Your task to perform on an android device: toggle data saver in the chrome app Image 0: 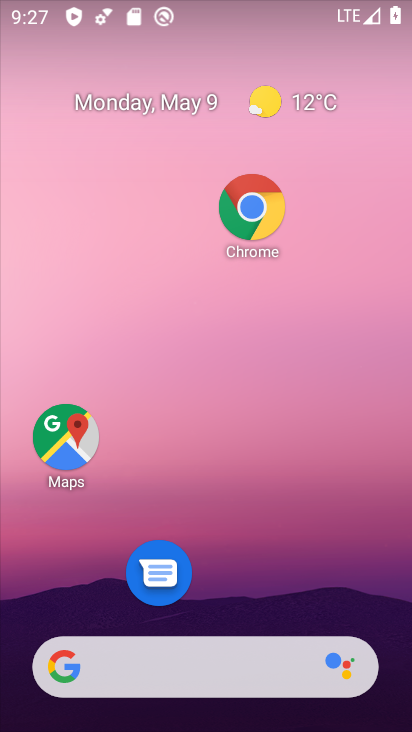
Step 0: drag from (293, 649) to (291, 158)
Your task to perform on an android device: toggle data saver in the chrome app Image 1: 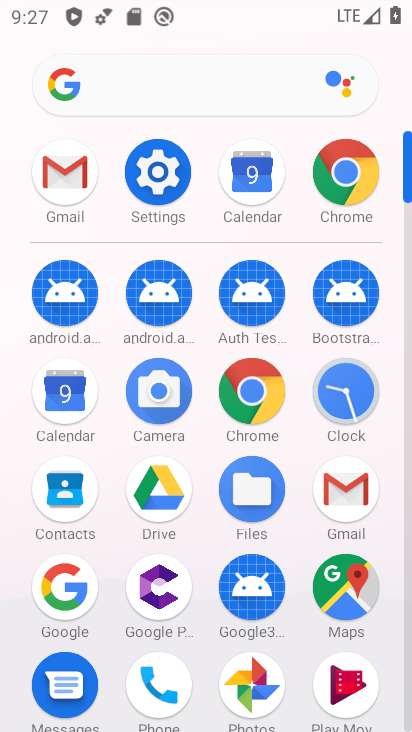
Step 1: click (354, 213)
Your task to perform on an android device: toggle data saver in the chrome app Image 2: 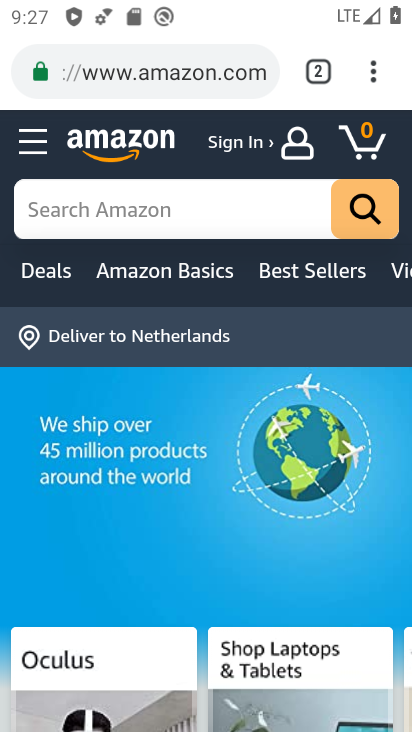
Step 2: click (376, 73)
Your task to perform on an android device: toggle data saver in the chrome app Image 3: 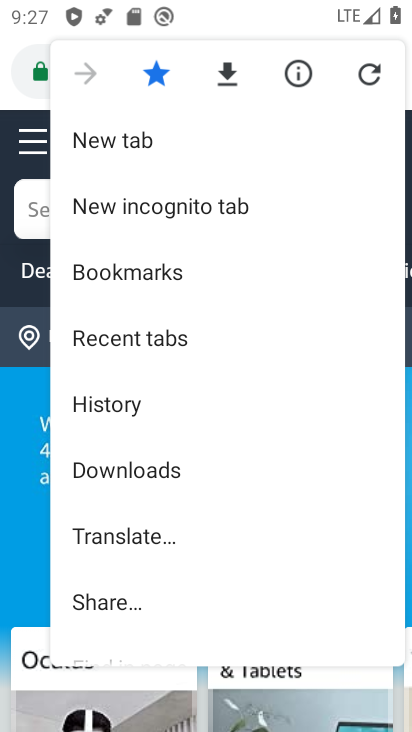
Step 3: drag from (225, 566) to (139, 354)
Your task to perform on an android device: toggle data saver in the chrome app Image 4: 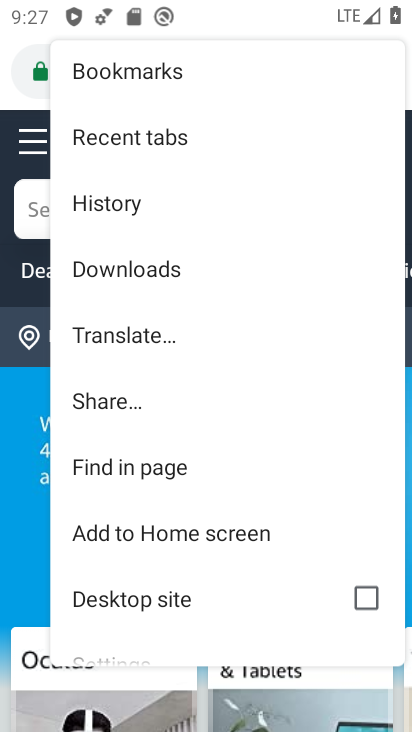
Step 4: drag from (175, 572) to (126, 304)
Your task to perform on an android device: toggle data saver in the chrome app Image 5: 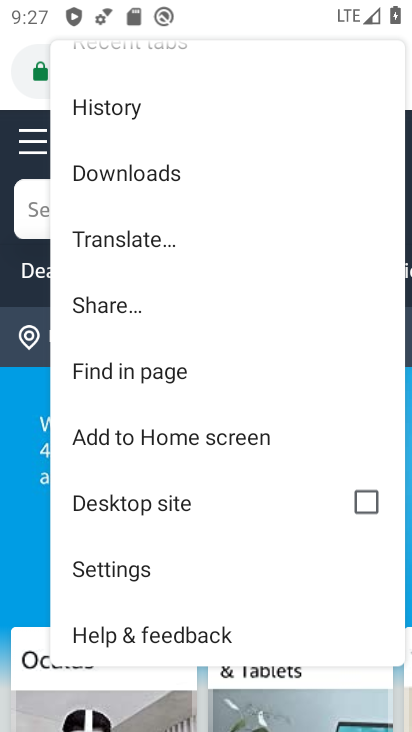
Step 5: click (179, 575)
Your task to perform on an android device: toggle data saver in the chrome app Image 6: 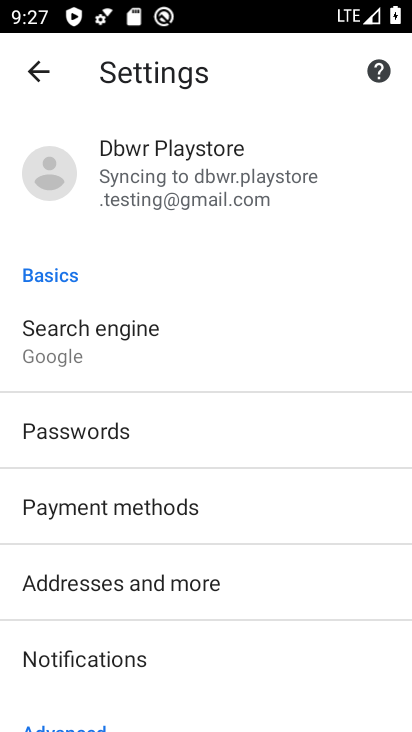
Step 6: drag from (216, 602) to (209, 398)
Your task to perform on an android device: toggle data saver in the chrome app Image 7: 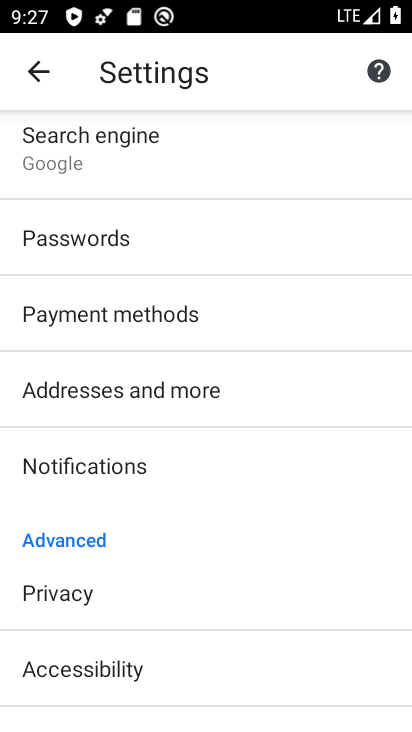
Step 7: drag from (222, 571) to (201, 363)
Your task to perform on an android device: toggle data saver in the chrome app Image 8: 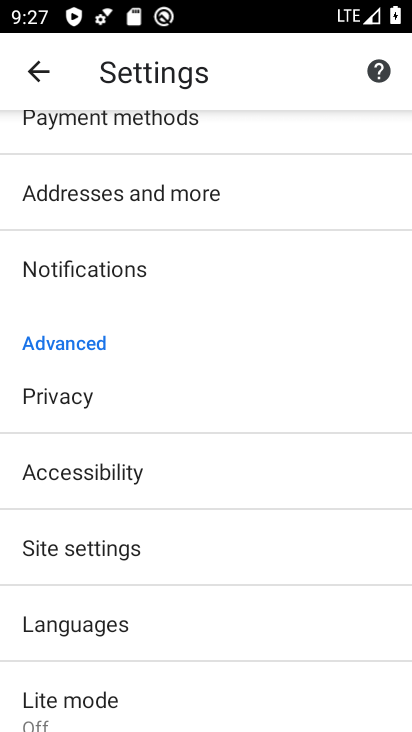
Step 8: drag from (261, 601) to (240, 485)
Your task to perform on an android device: toggle data saver in the chrome app Image 9: 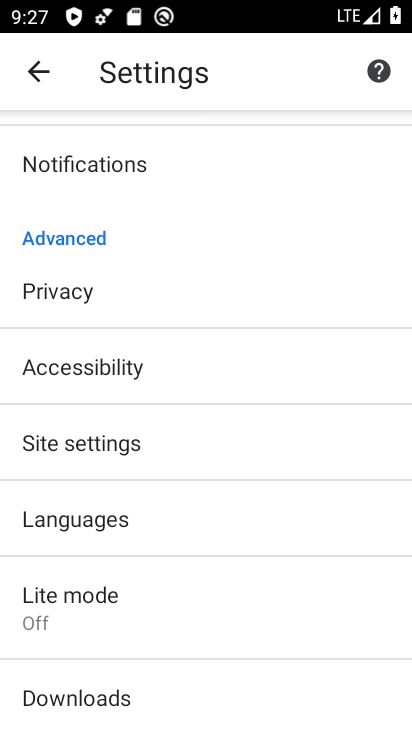
Step 9: drag from (192, 605) to (203, 433)
Your task to perform on an android device: toggle data saver in the chrome app Image 10: 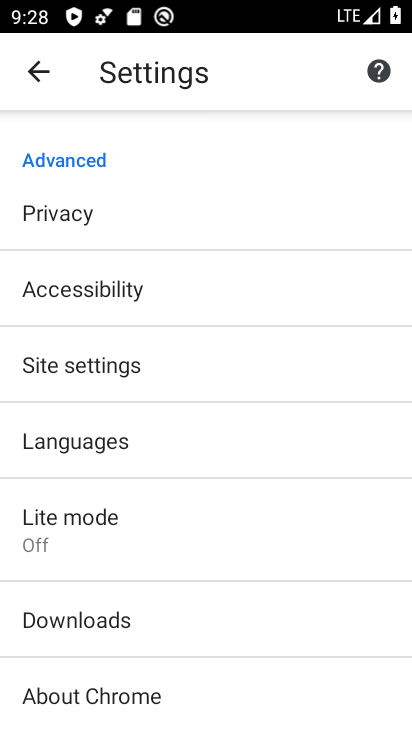
Step 10: click (164, 535)
Your task to perform on an android device: toggle data saver in the chrome app Image 11: 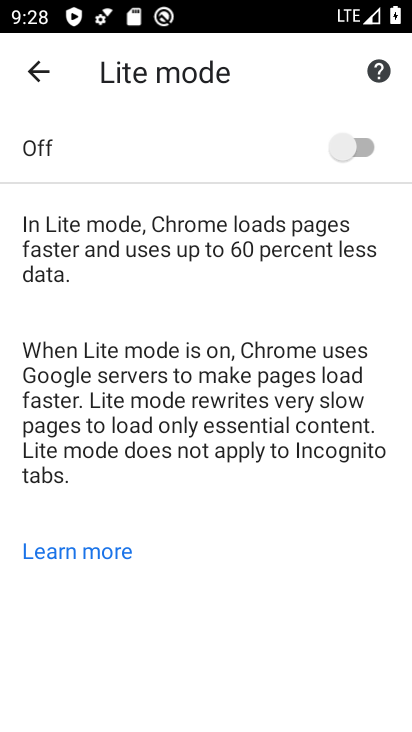
Step 11: click (356, 146)
Your task to perform on an android device: toggle data saver in the chrome app Image 12: 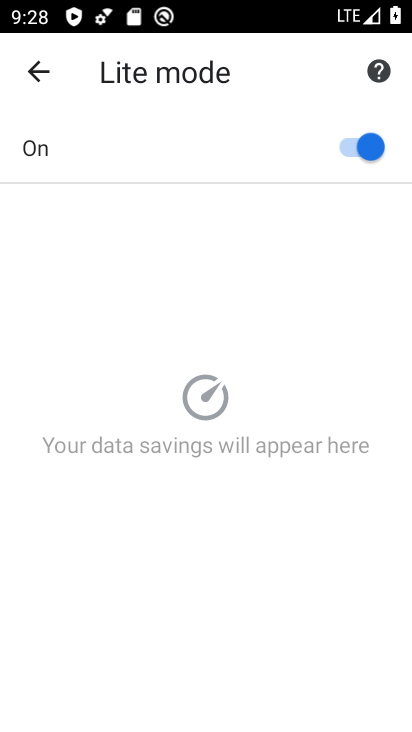
Step 12: task complete